Your task to perform on an android device: turn on the 12-hour format for clock Image 0: 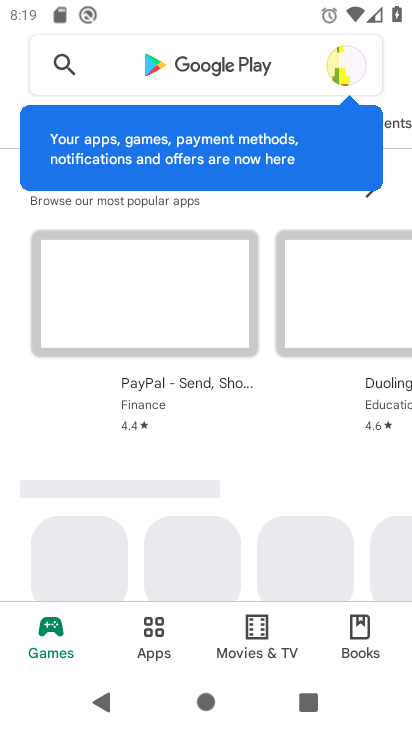
Step 0: press back button
Your task to perform on an android device: turn on the 12-hour format for clock Image 1: 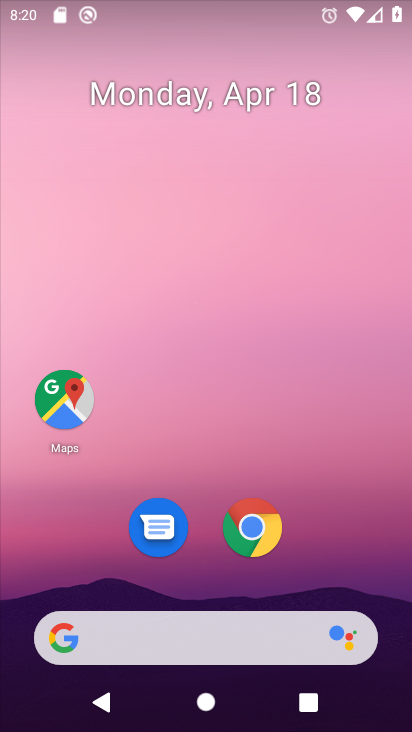
Step 1: drag from (115, 589) to (302, 47)
Your task to perform on an android device: turn on the 12-hour format for clock Image 2: 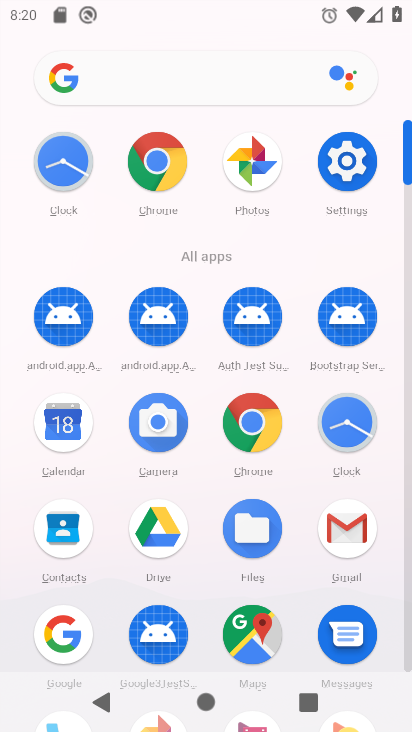
Step 2: click (353, 427)
Your task to perform on an android device: turn on the 12-hour format for clock Image 3: 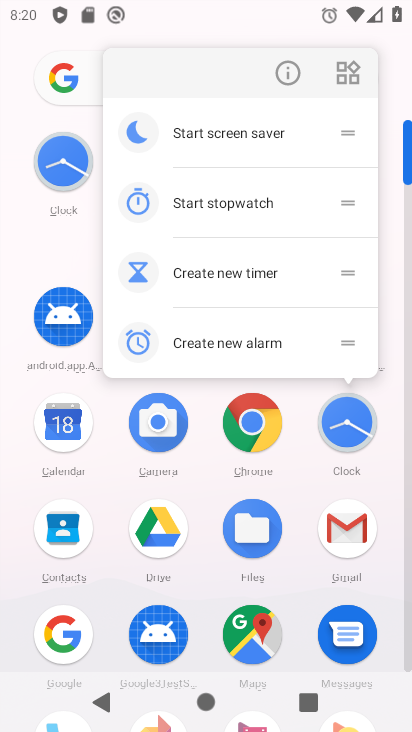
Step 3: click (345, 414)
Your task to perform on an android device: turn on the 12-hour format for clock Image 4: 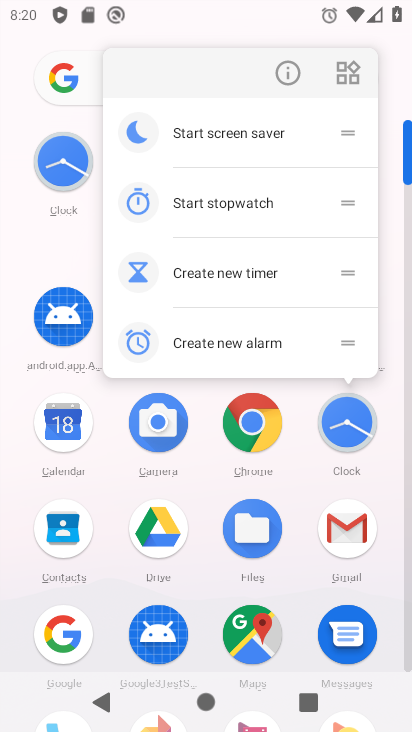
Step 4: click (346, 421)
Your task to perform on an android device: turn on the 12-hour format for clock Image 5: 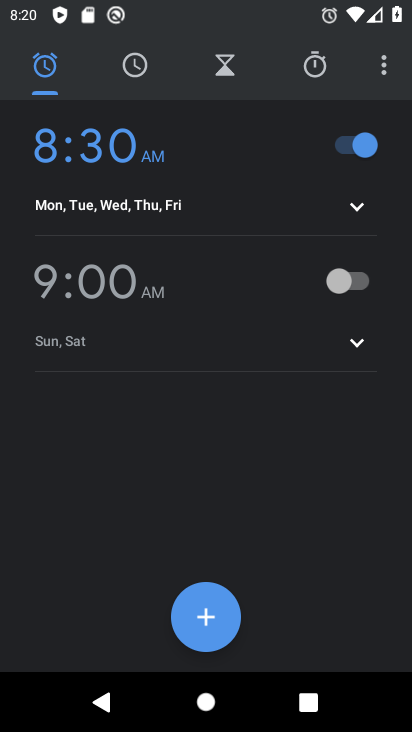
Step 5: click (389, 65)
Your task to perform on an android device: turn on the 12-hour format for clock Image 6: 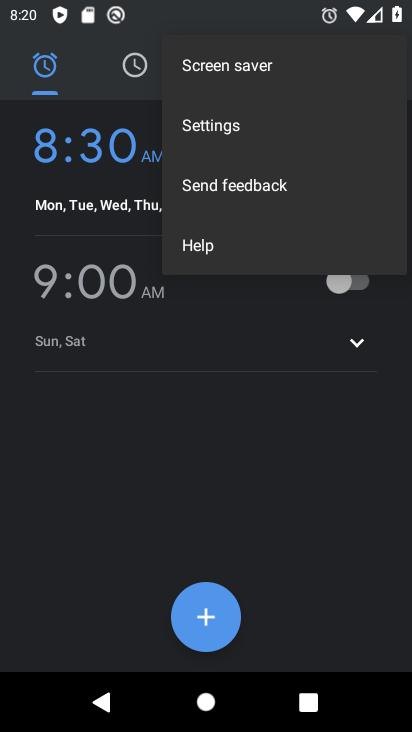
Step 6: click (276, 143)
Your task to perform on an android device: turn on the 12-hour format for clock Image 7: 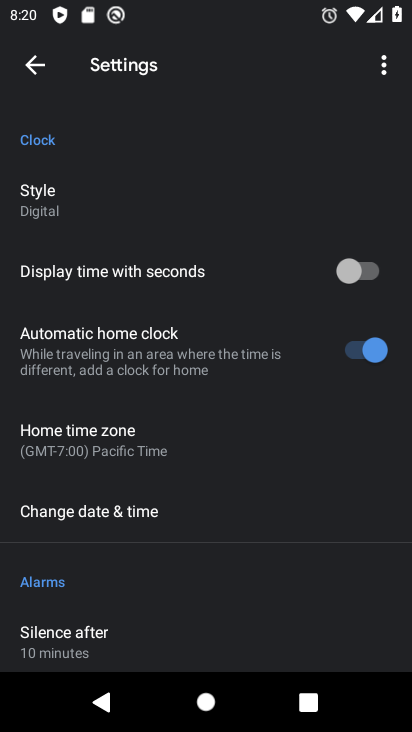
Step 7: drag from (180, 583) to (269, 93)
Your task to perform on an android device: turn on the 12-hour format for clock Image 8: 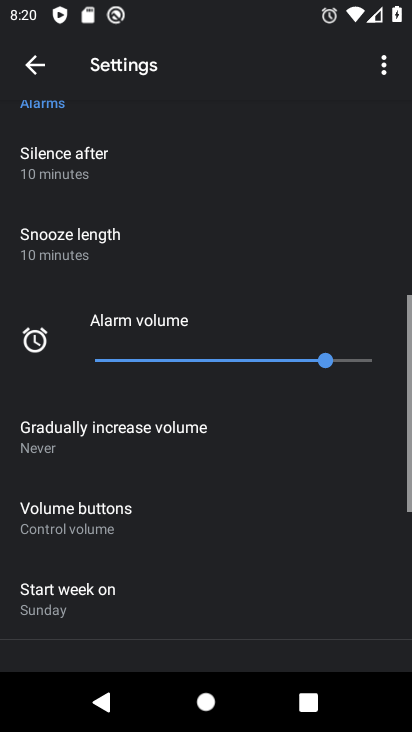
Step 8: drag from (188, 592) to (286, 166)
Your task to perform on an android device: turn on the 12-hour format for clock Image 9: 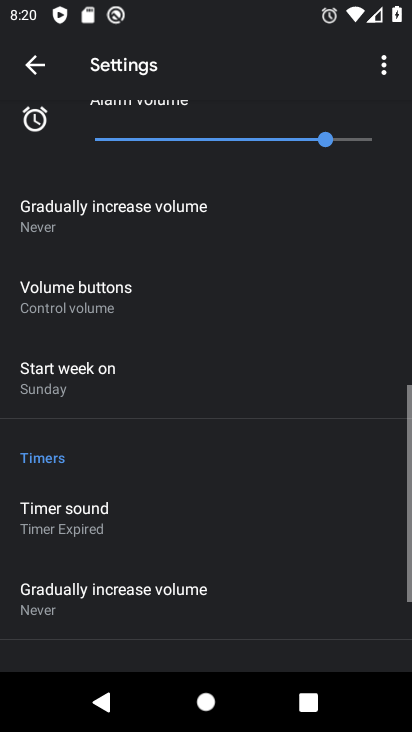
Step 9: drag from (220, 501) to (327, 198)
Your task to perform on an android device: turn on the 12-hour format for clock Image 10: 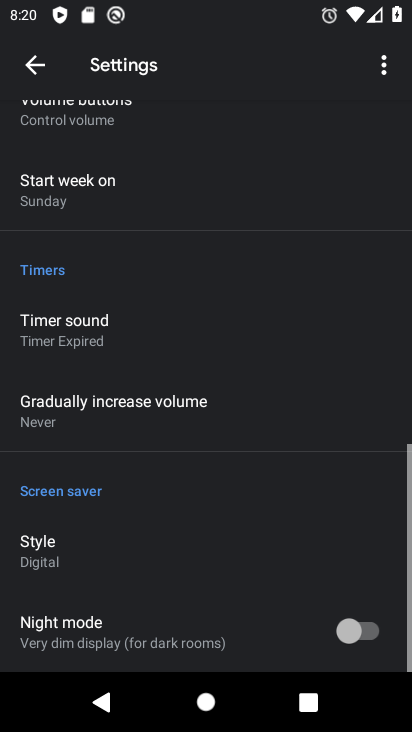
Step 10: drag from (245, 515) to (313, 229)
Your task to perform on an android device: turn on the 12-hour format for clock Image 11: 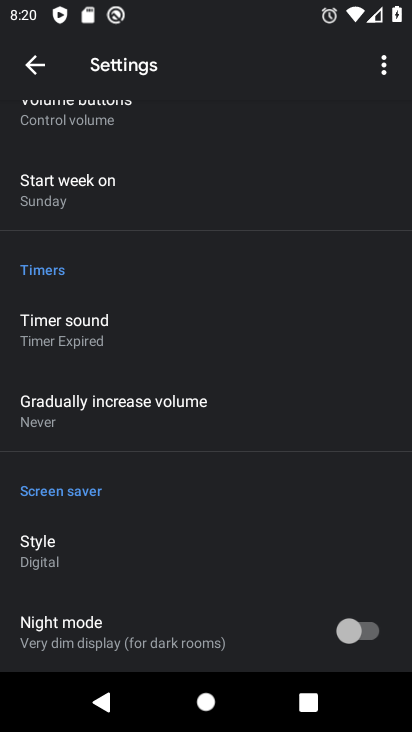
Step 11: drag from (257, 594) to (240, 642)
Your task to perform on an android device: turn on the 12-hour format for clock Image 12: 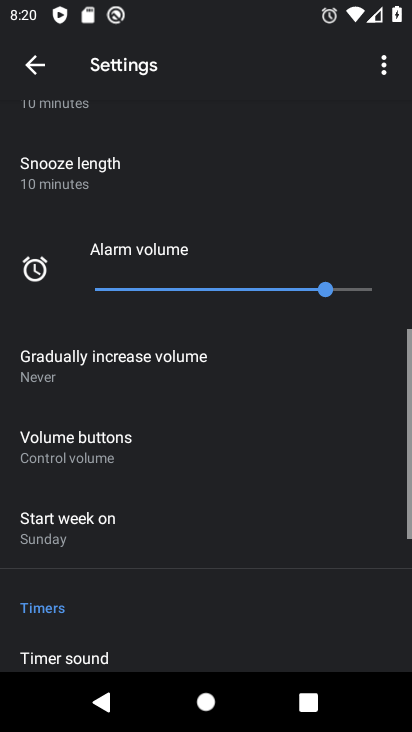
Step 12: drag from (267, 322) to (229, 633)
Your task to perform on an android device: turn on the 12-hour format for clock Image 13: 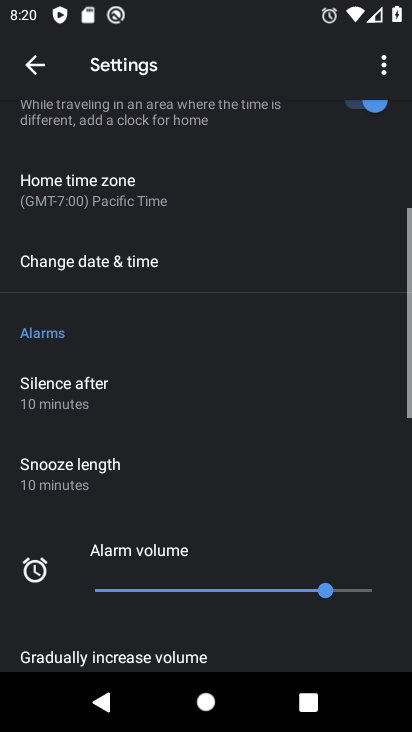
Step 13: drag from (181, 310) to (177, 440)
Your task to perform on an android device: turn on the 12-hour format for clock Image 14: 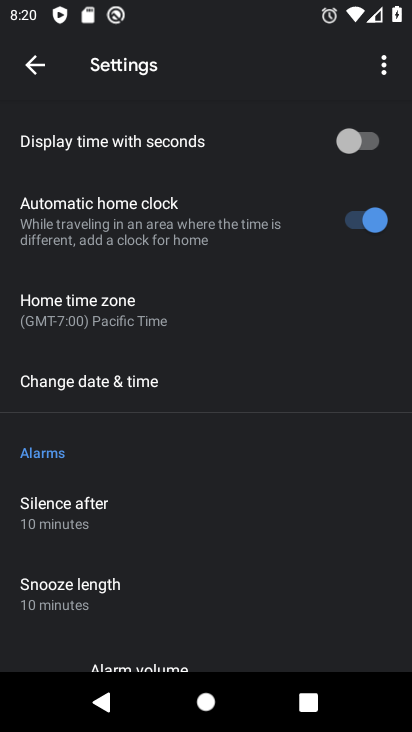
Step 14: click (169, 392)
Your task to perform on an android device: turn on the 12-hour format for clock Image 15: 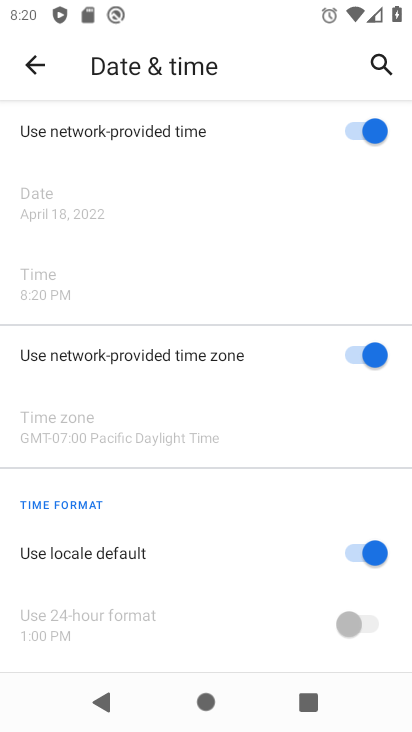
Step 15: task complete